Your task to perform on an android device: change the clock display to analog Image 0: 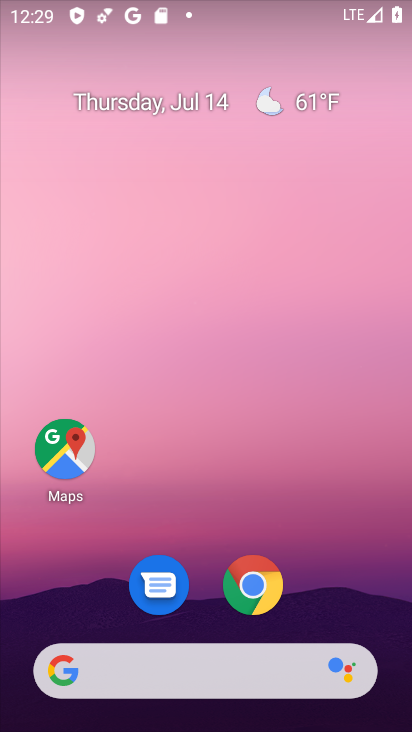
Step 0: drag from (349, 576) to (355, 34)
Your task to perform on an android device: change the clock display to analog Image 1: 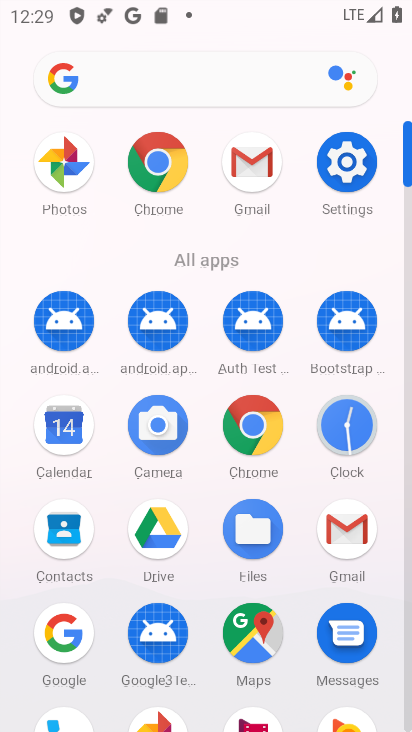
Step 1: click (347, 428)
Your task to perform on an android device: change the clock display to analog Image 2: 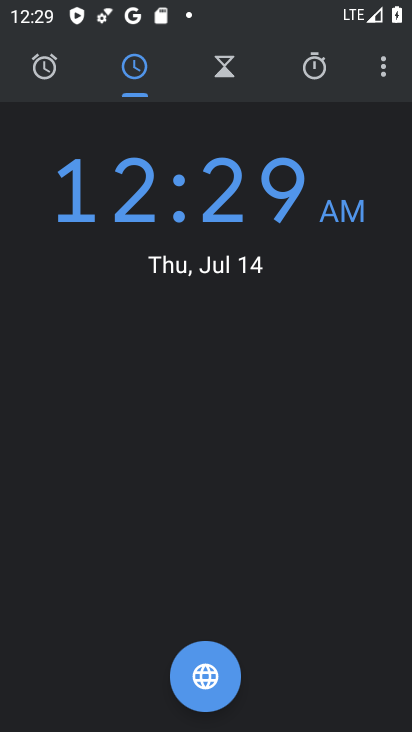
Step 2: click (384, 67)
Your task to perform on an android device: change the clock display to analog Image 3: 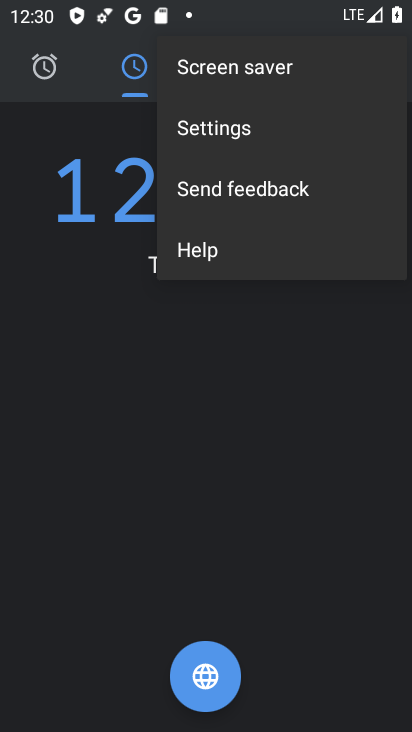
Step 3: click (317, 128)
Your task to perform on an android device: change the clock display to analog Image 4: 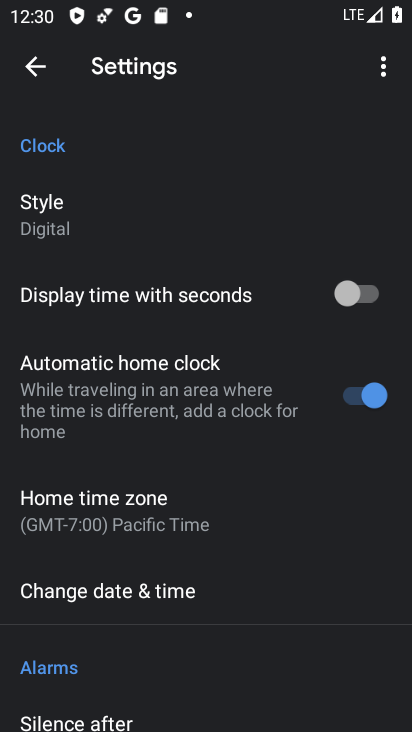
Step 4: click (69, 208)
Your task to perform on an android device: change the clock display to analog Image 5: 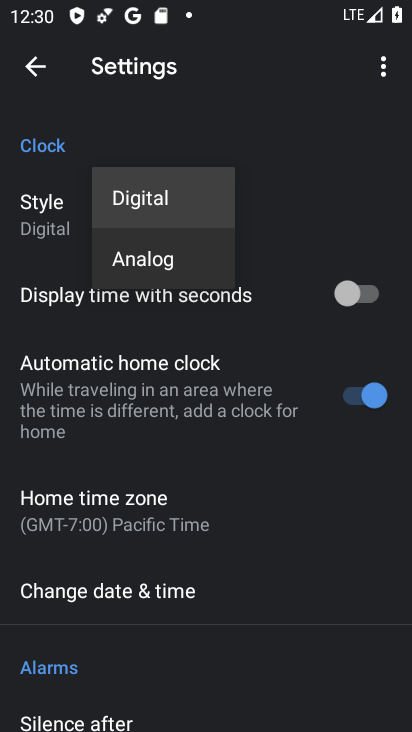
Step 5: click (125, 262)
Your task to perform on an android device: change the clock display to analog Image 6: 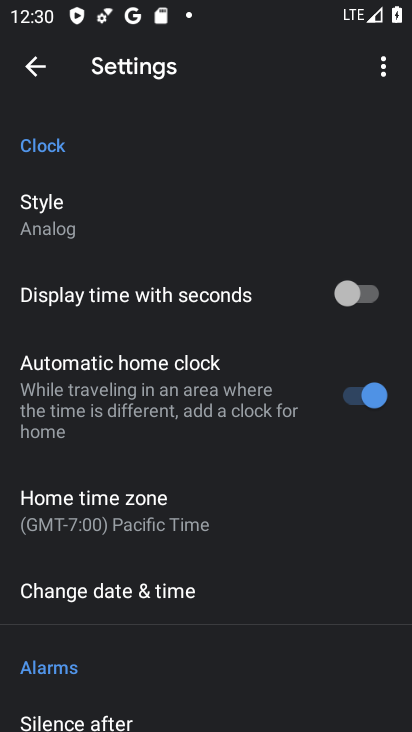
Step 6: click (35, 60)
Your task to perform on an android device: change the clock display to analog Image 7: 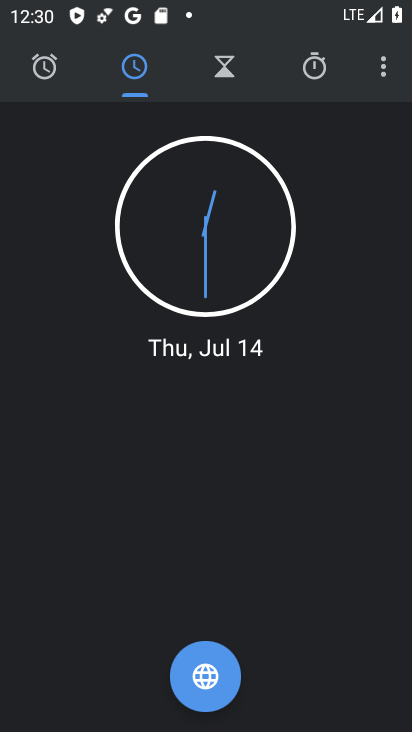
Step 7: task complete